Your task to perform on an android device: open chrome privacy settings Image 0: 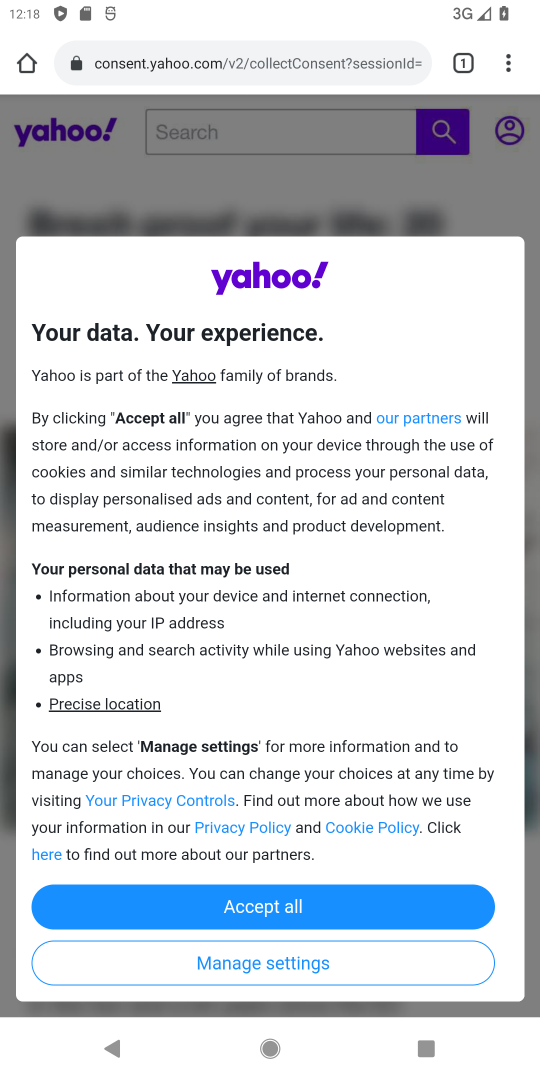
Step 0: click (282, 29)
Your task to perform on an android device: open chrome privacy settings Image 1: 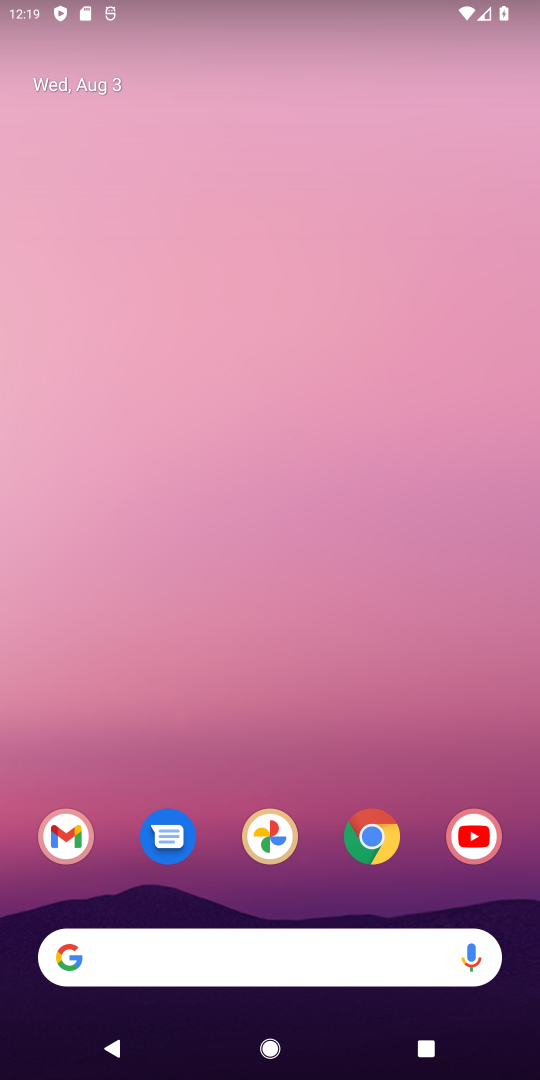
Step 1: drag from (215, 902) to (530, 75)
Your task to perform on an android device: open chrome privacy settings Image 2: 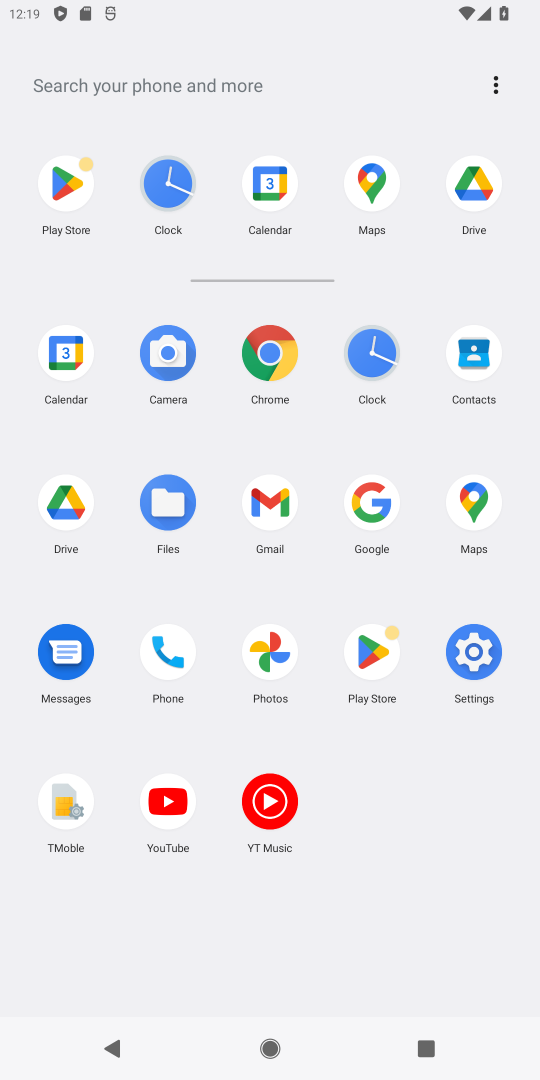
Step 2: click (473, 649)
Your task to perform on an android device: open chrome privacy settings Image 3: 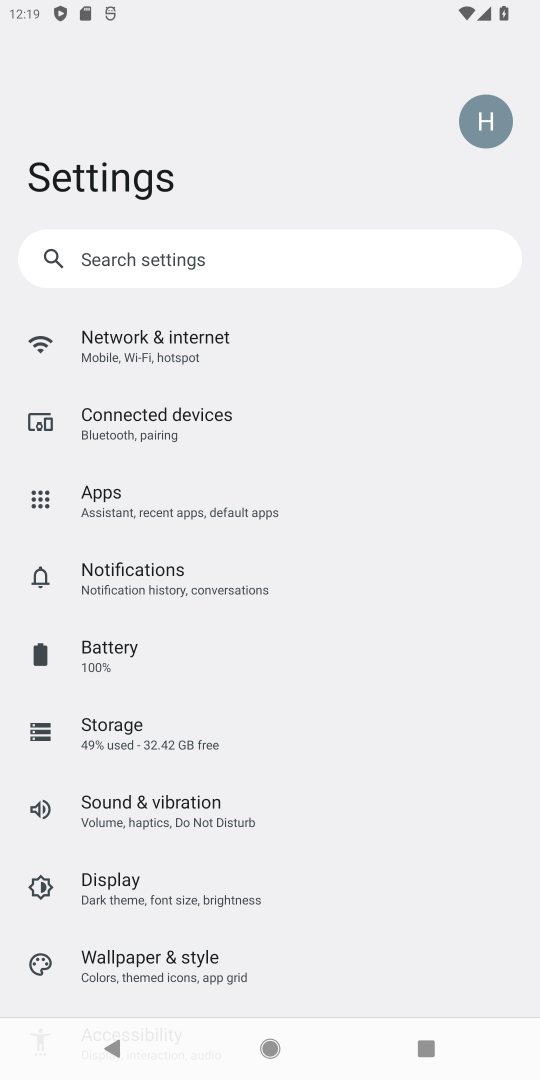
Step 3: drag from (212, 906) to (310, 352)
Your task to perform on an android device: open chrome privacy settings Image 4: 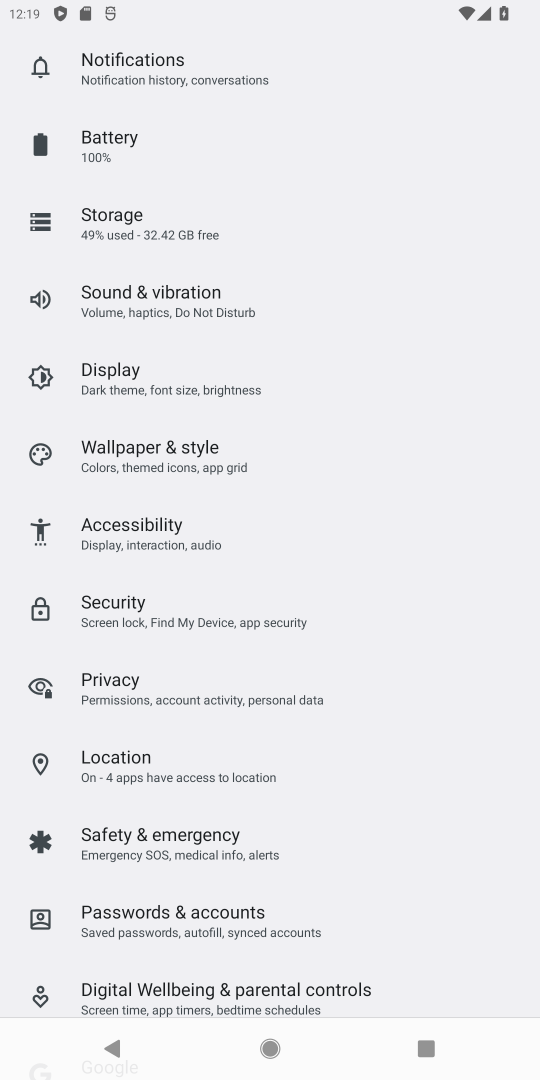
Step 4: press home button
Your task to perform on an android device: open chrome privacy settings Image 5: 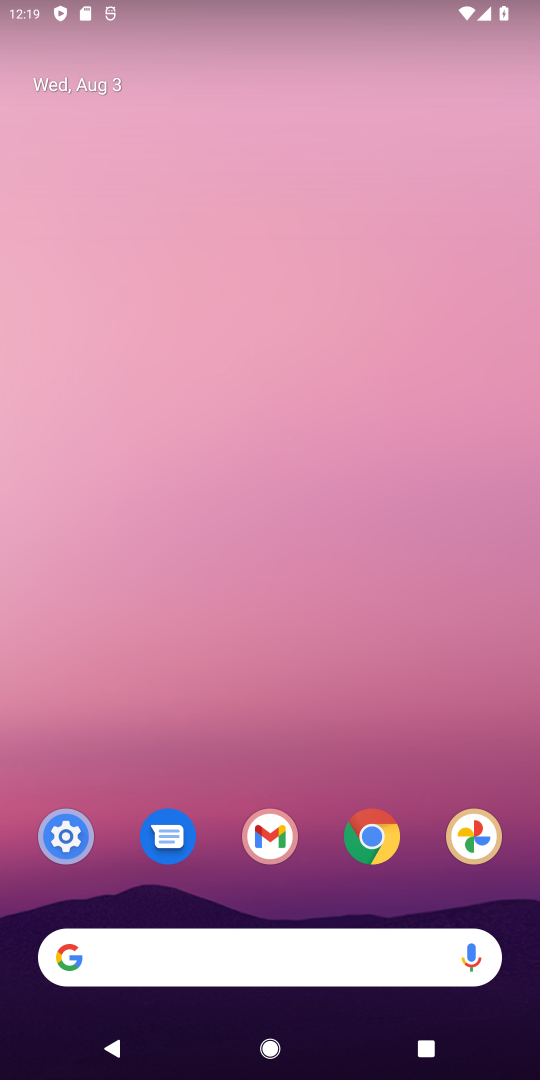
Step 5: drag from (202, 738) to (213, 182)
Your task to perform on an android device: open chrome privacy settings Image 6: 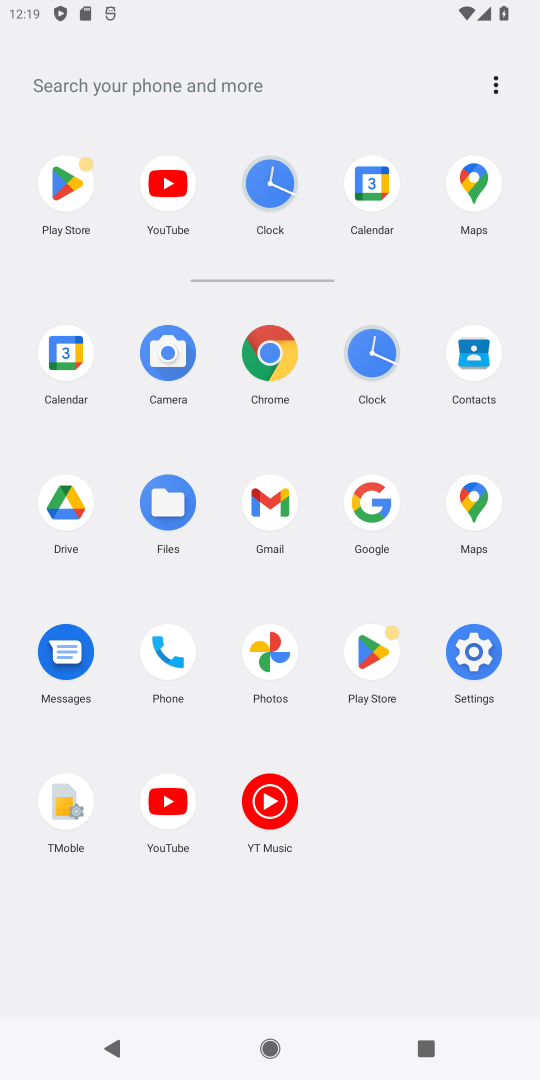
Step 6: drag from (312, 717) to (330, 441)
Your task to perform on an android device: open chrome privacy settings Image 7: 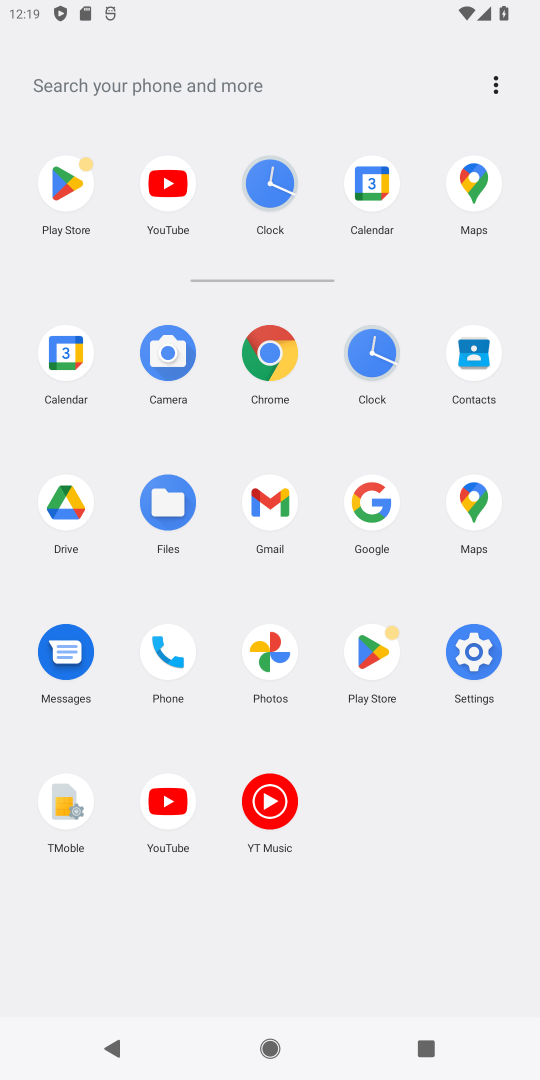
Step 7: click (264, 340)
Your task to perform on an android device: open chrome privacy settings Image 8: 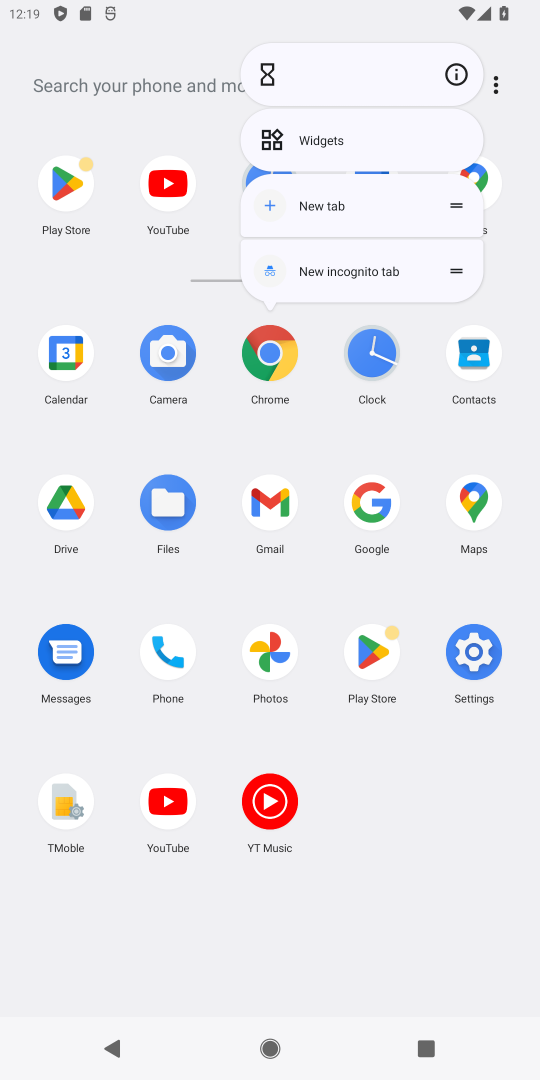
Step 8: click (458, 60)
Your task to perform on an android device: open chrome privacy settings Image 9: 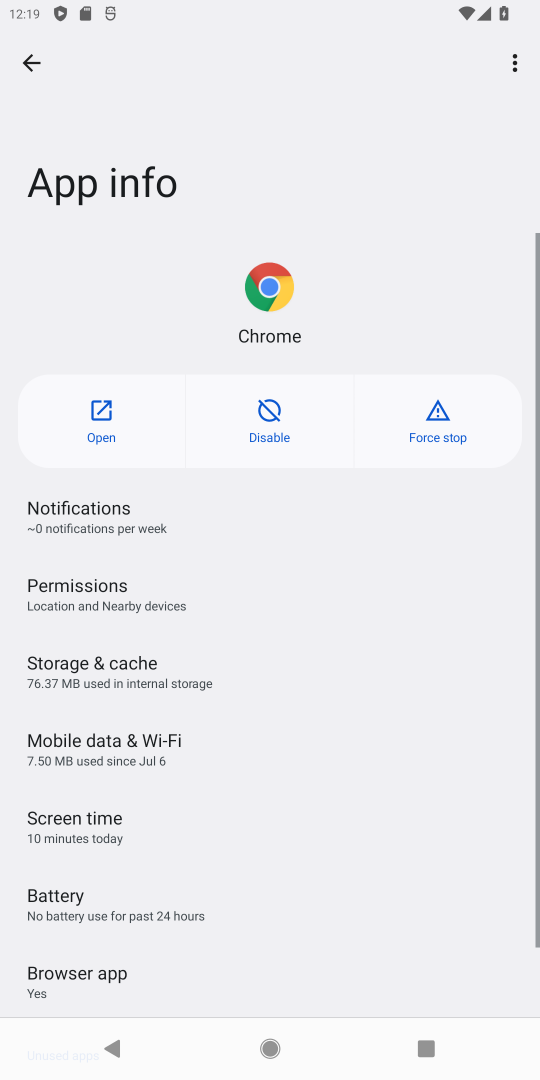
Step 9: click (86, 422)
Your task to perform on an android device: open chrome privacy settings Image 10: 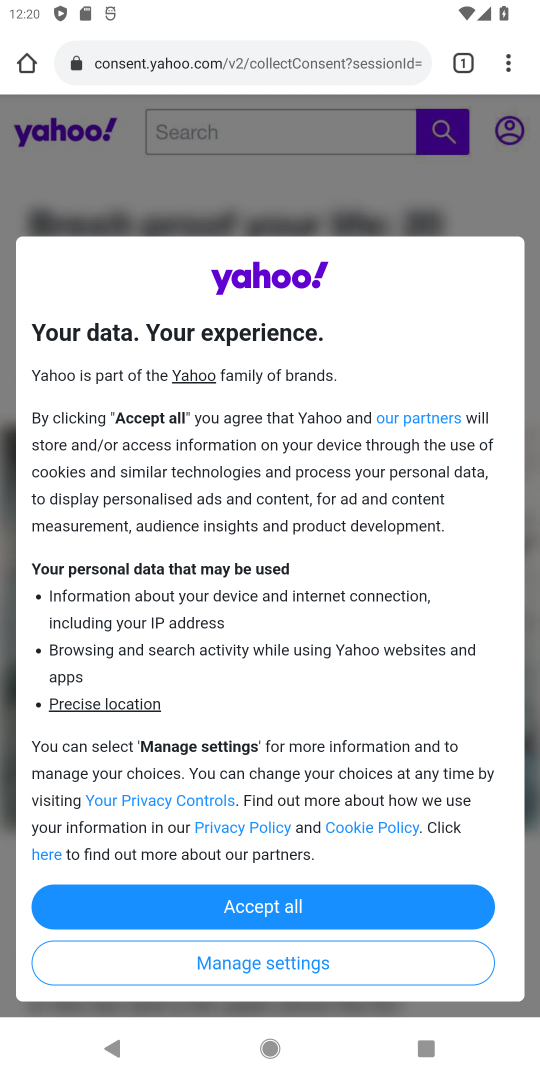
Step 10: drag from (238, 851) to (249, 385)
Your task to perform on an android device: open chrome privacy settings Image 11: 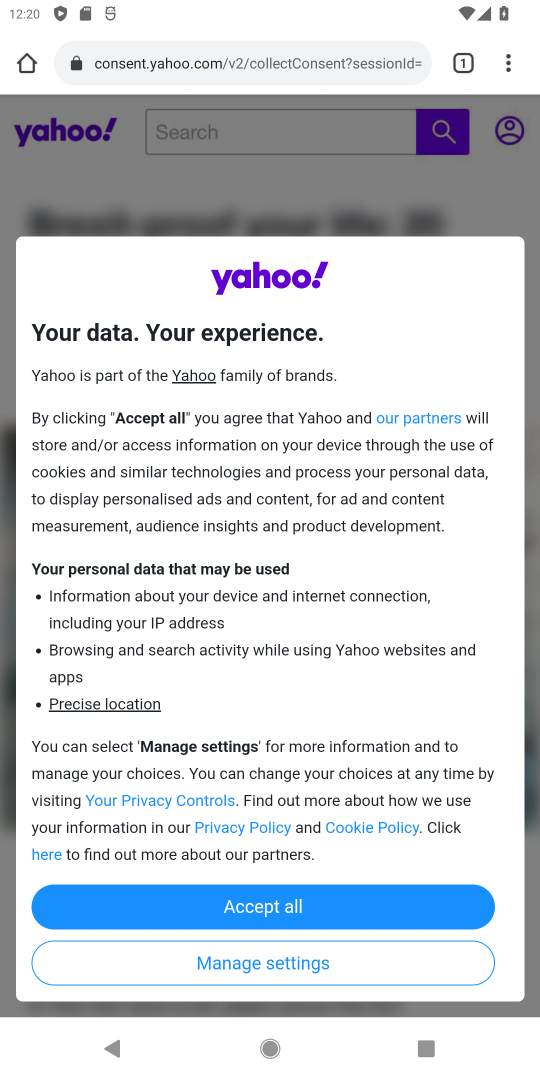
Step 11: drag from (274, 456) to (401, 1043)
Your task to perform on an android device: open chrome privacy settings Image 12: 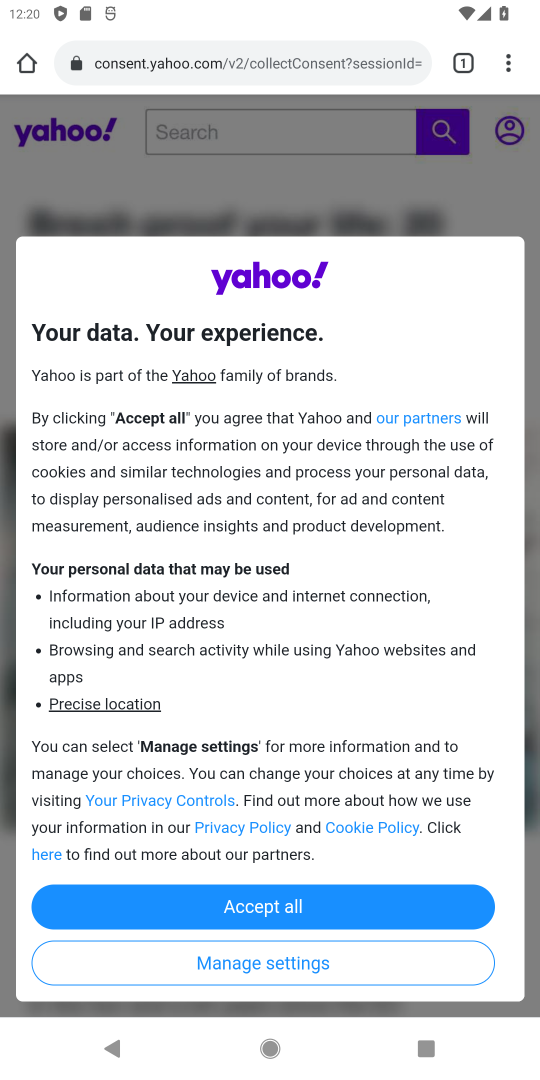
Step 12: drag from (507, 62) to (332, 810)
Your task to perform on an android device: open chrome privacy settings Image 13: 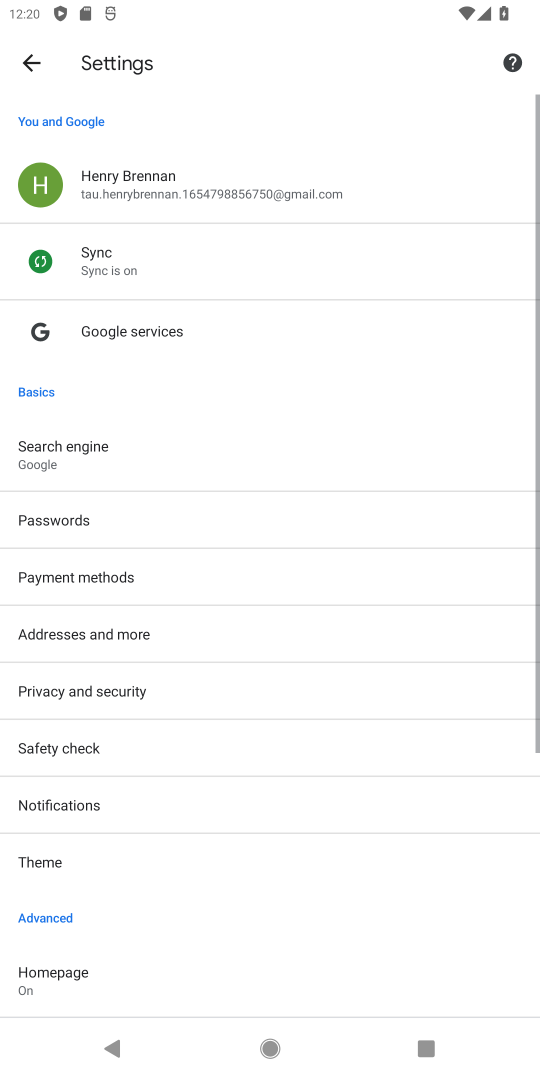
Step 13: drag from (192, 796) to (224, 440)
Your task to perform on an android device: open chrome privacy settings Image 14: 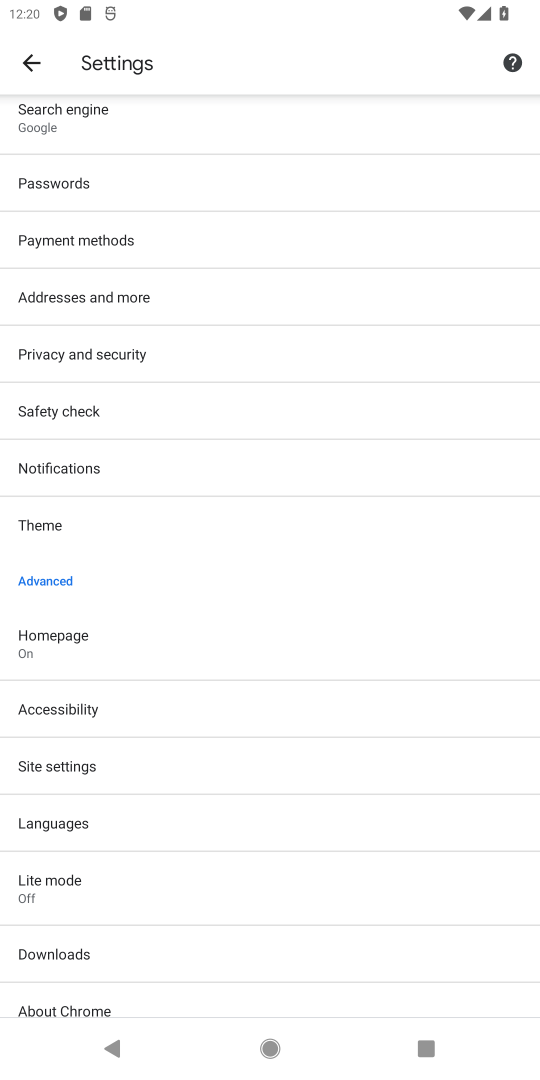
Step 14: drag from (207, 375) to (290, 1027)
Your task to perform on an android device: open chrome privacy settings Image 15: 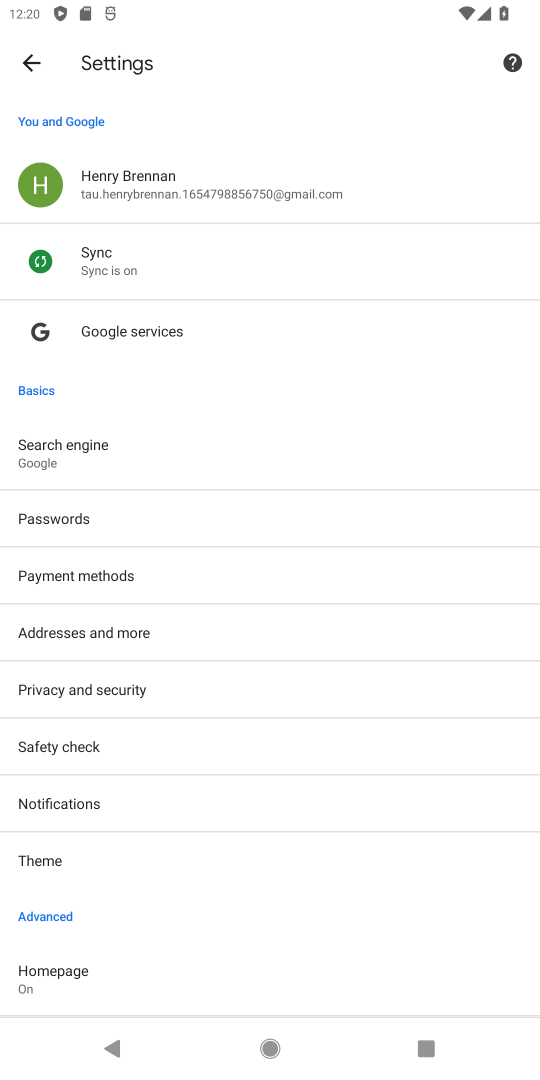
Step 15: drag from (256, 869) to (359, 321)
Your task to perform on an android device: open chrome privacy settings Image 16: 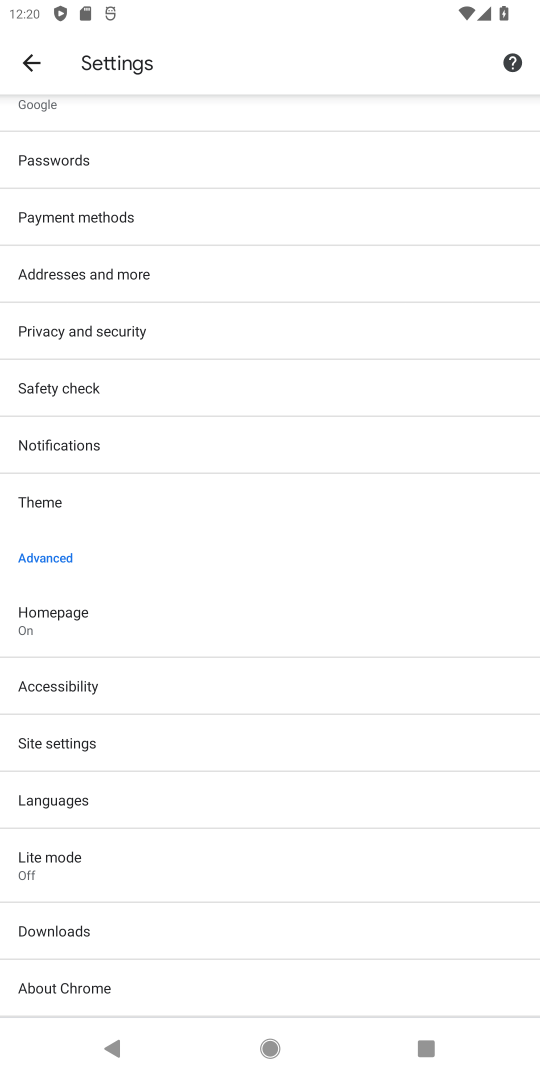
Step 16: drag from (306, 870) to (309, 523)
Your task to perform on an android device: open chrome privacy settings Image 17: 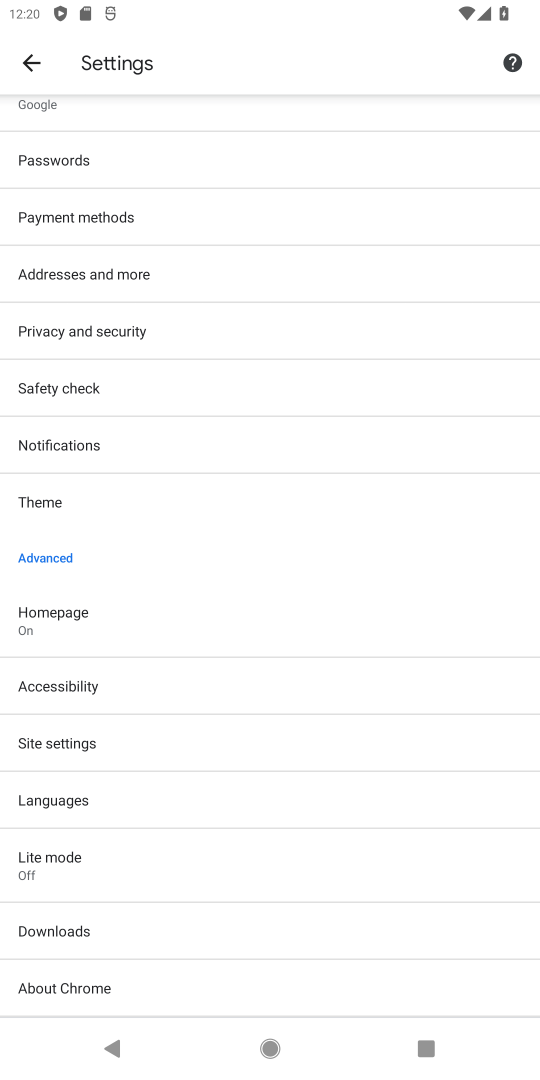
Step 17: drag from (289, 794) to (275, 459)
Your task to perform on an android device: open chrome privacy settings Image 18: 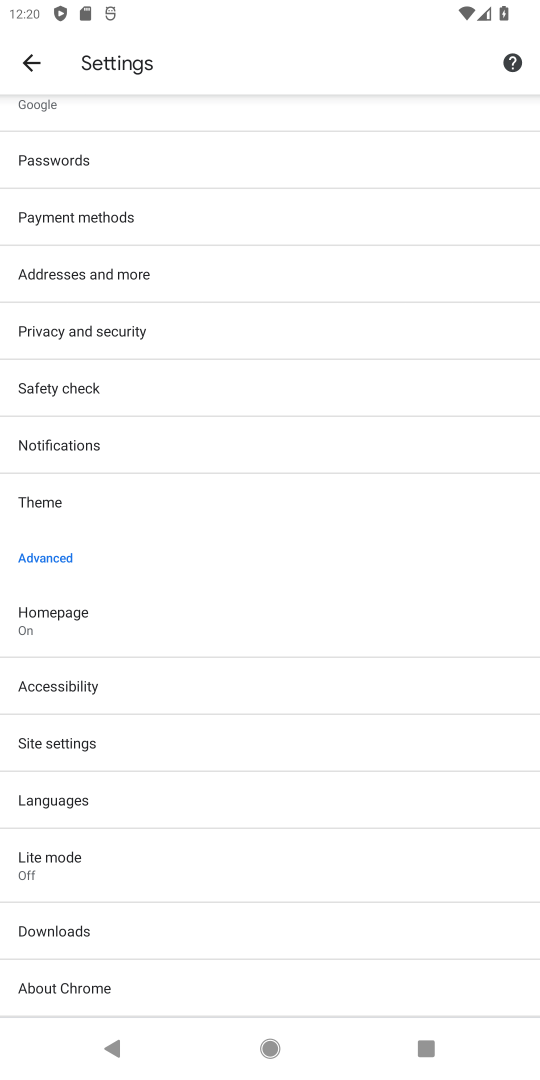
Step 18: drag from (185, 855) to (280, 524)
Your task to perform on an android device: open chrome privacy settings Image 19: 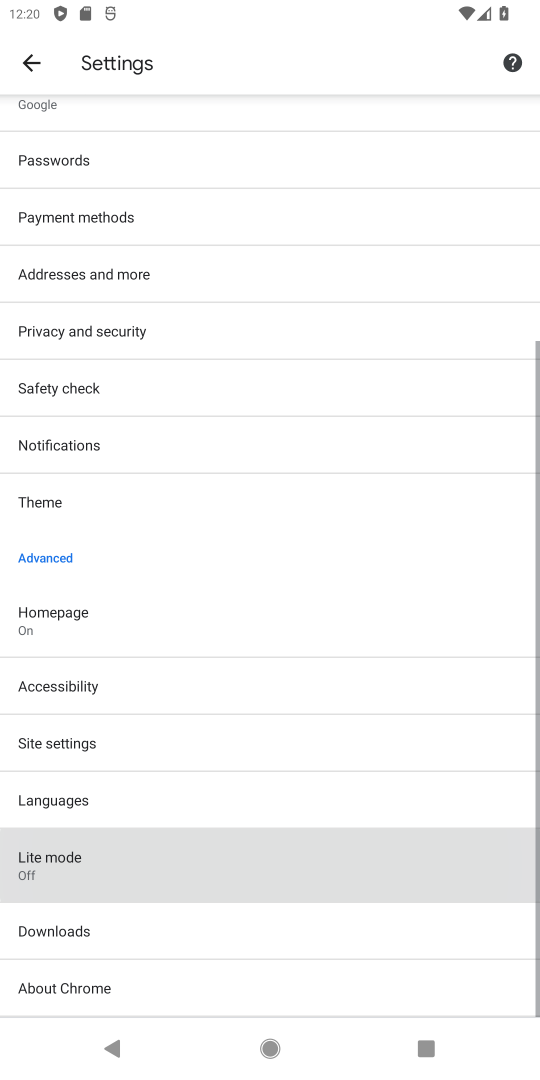
Step 19: drag from (356, 324) to (392, 1079)
Your task to perform on an android device: open chrome privacy settings Image 20: 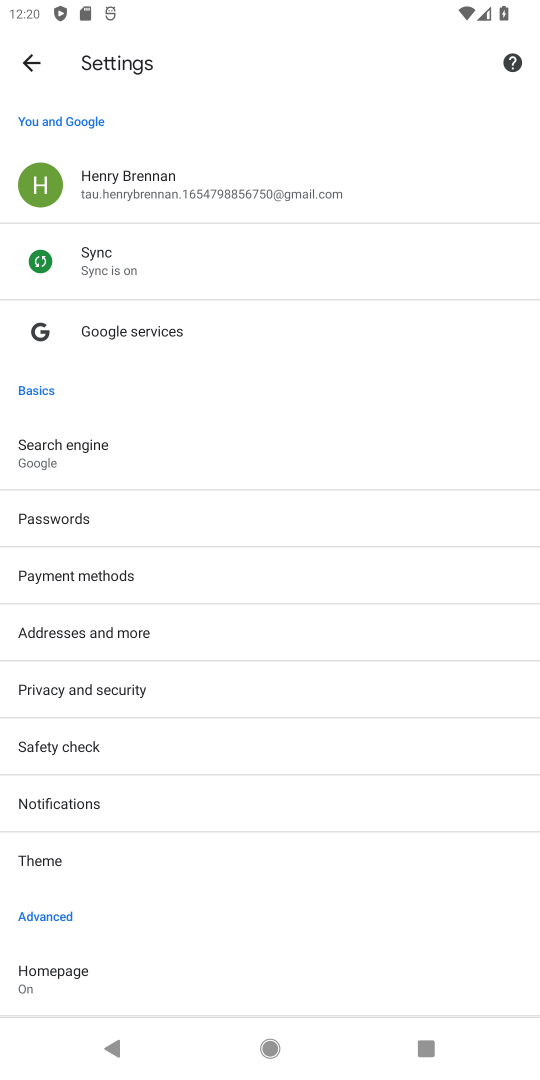
Step 20: drag from (79, 897) to (288, 348)
Your task to perform on an android device: open chrome privacy settings Image 21: 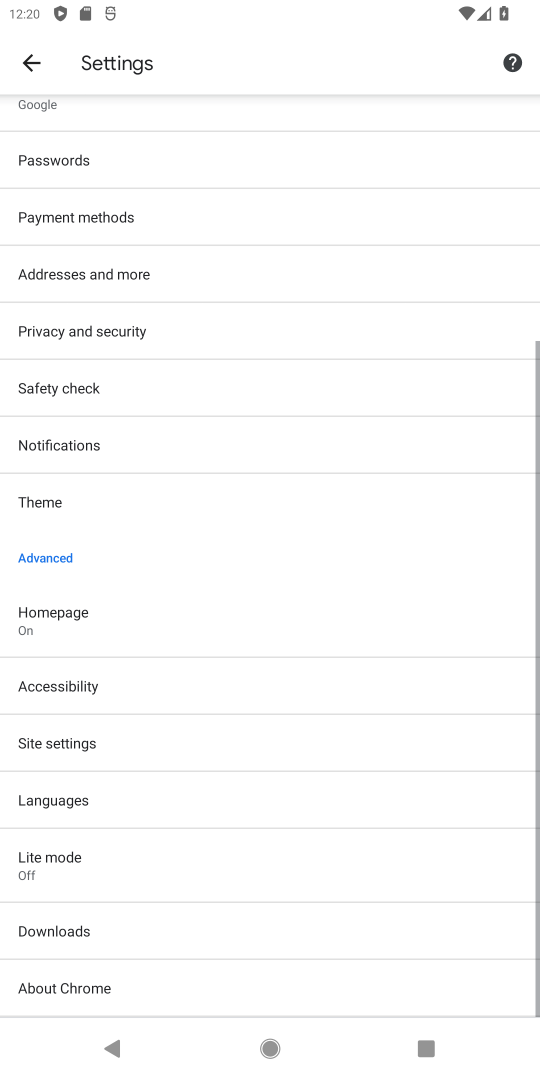
Step 21: drag from (302, 246) to (302, 1056)
Your task to perform on an android device: open chrome privacy settings Image 22: 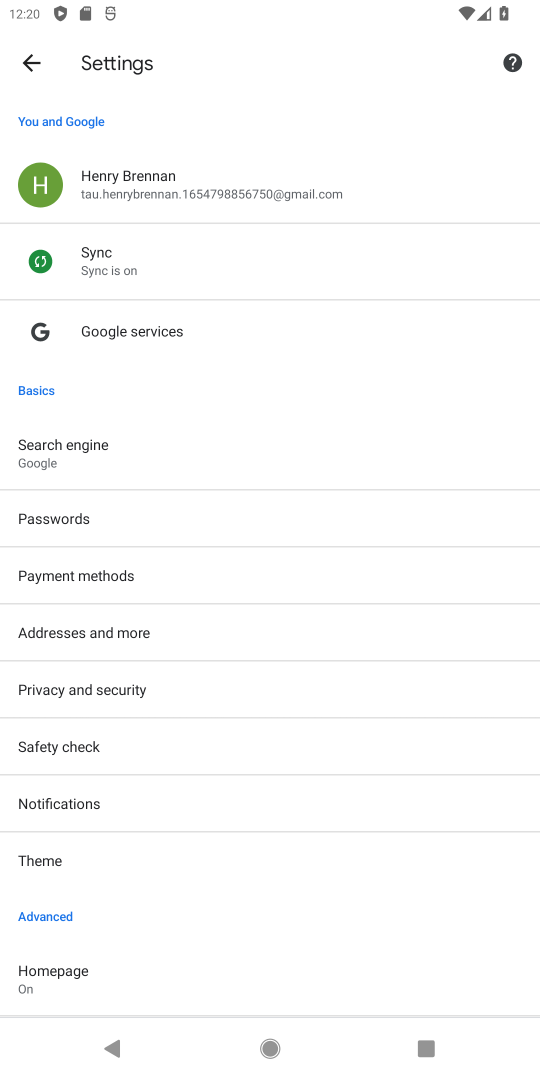
Step 22: drag from (233, 807) to (297, 369)
Your task to perform on an android device: open chrome privacy settings Image 23: 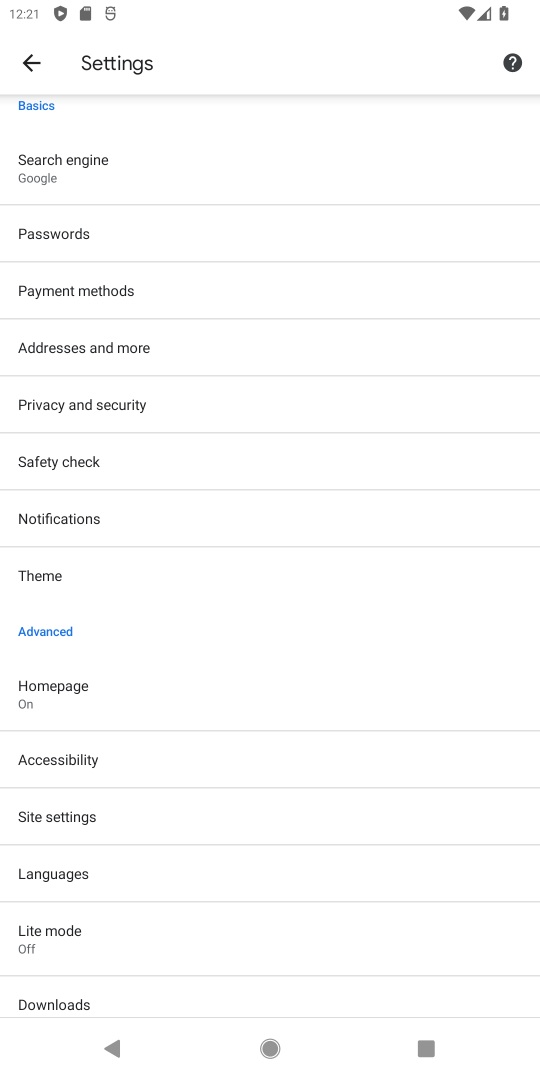
Step 23: drag from (206, 595) to (395, 218)
Your task to perform on an android device: open chrome privacy settings Image 24: 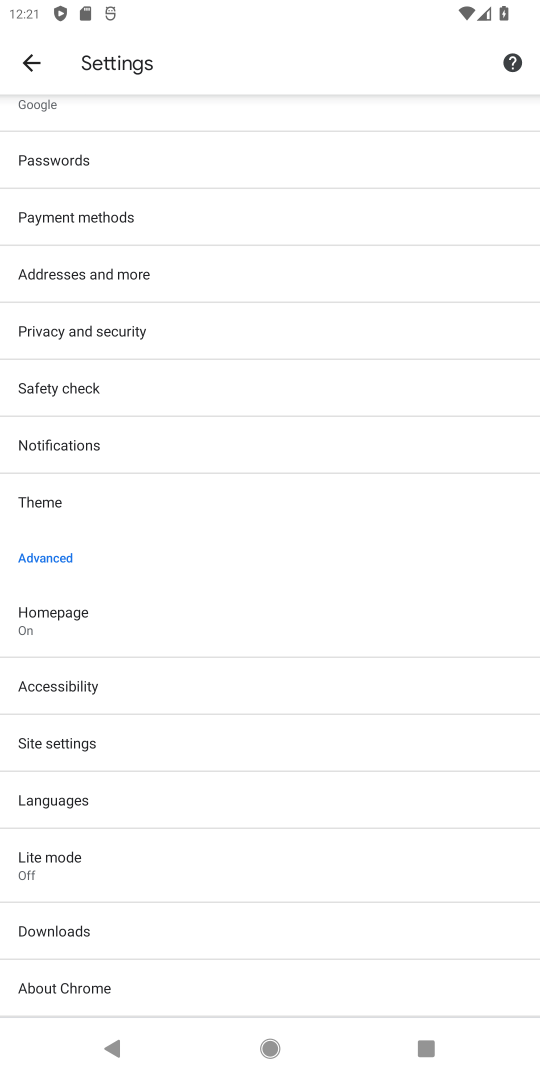
Step 24: drag from (265, 342) to (415, 963)
Your task to perform on an android device: open chrome privacy settings Image 25: 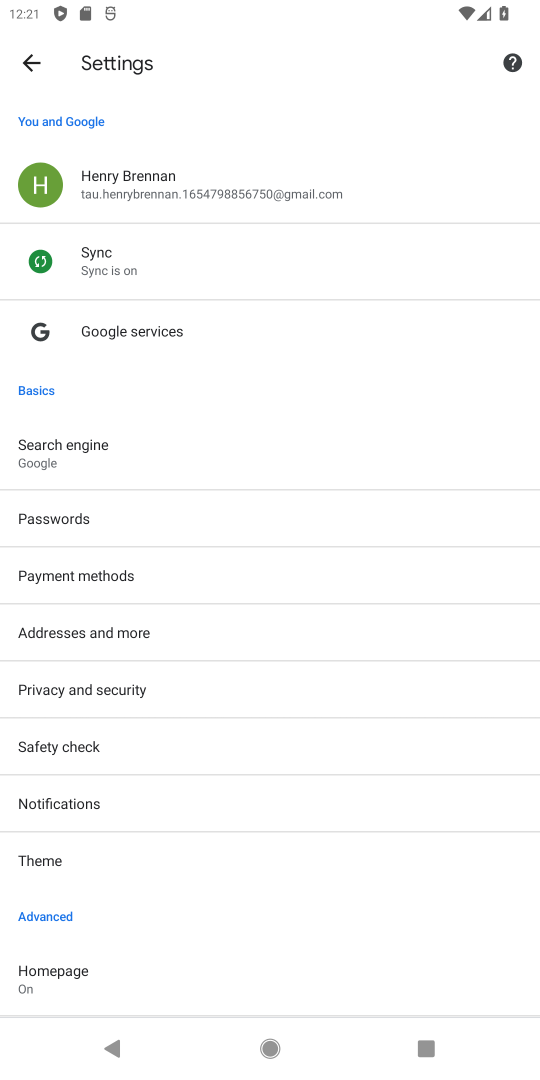
Step 25: drag from (272, 643) to (489, 107)
Your task to perform on an android device: open chrome privacy settings Image 26: 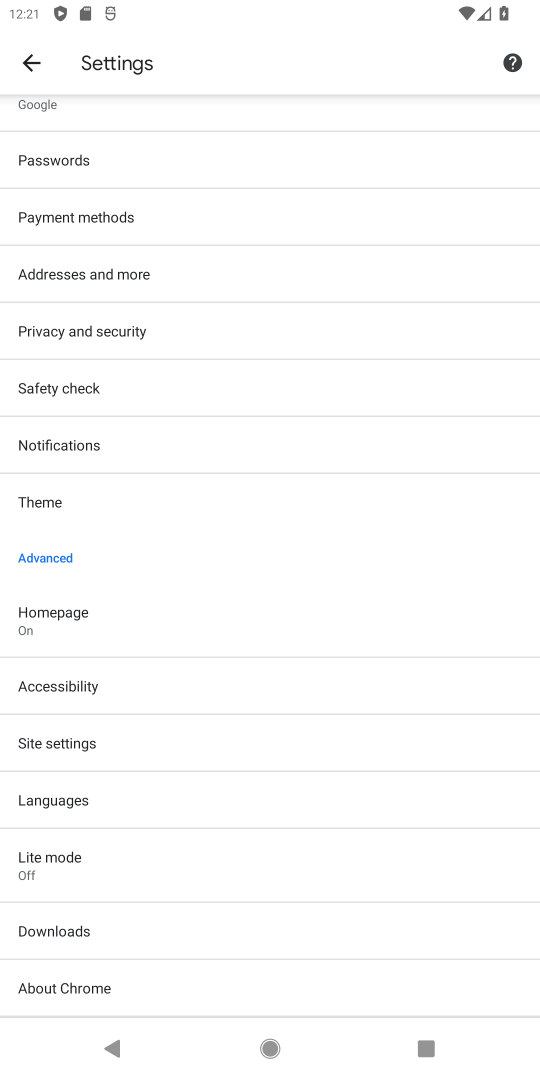
Step 26: click (141, 326)
Your task to perform on an android device: open chrome privacy settings Image 27: 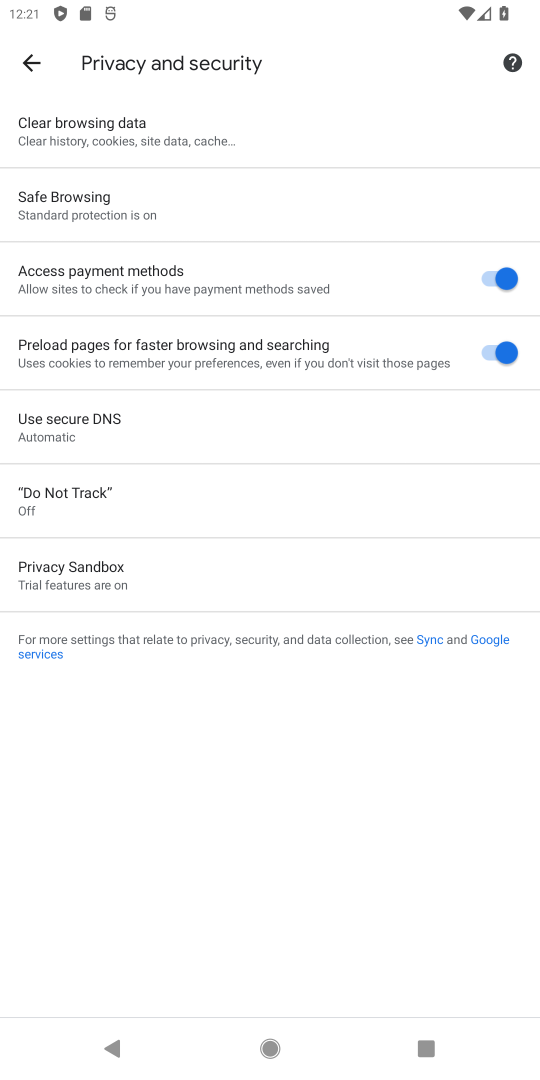
Step 27: task complete